Your task to perform on an android device: add a contact in the contacts app Image 0: 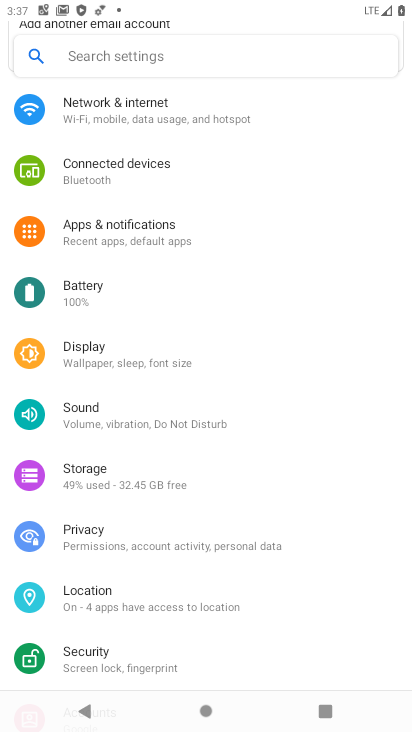
Step 0: press home button
Your task to perform on an android device: add a contact in the contacts app Image 1: 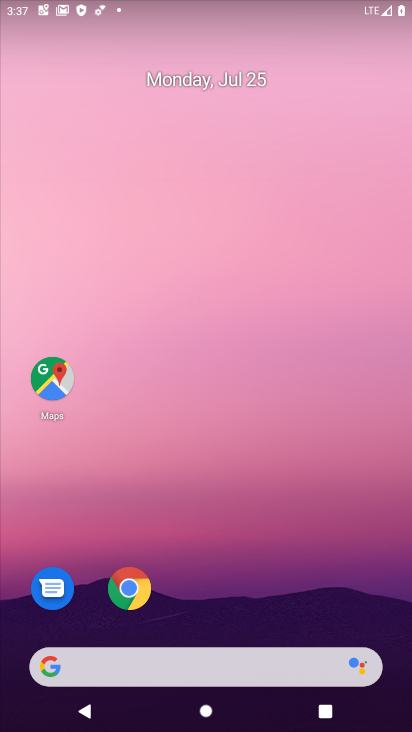
Step 1: drag from (402, 714) to (341, 86)
Your task to perform on an android device: add a contact in the contacts app Image 2: 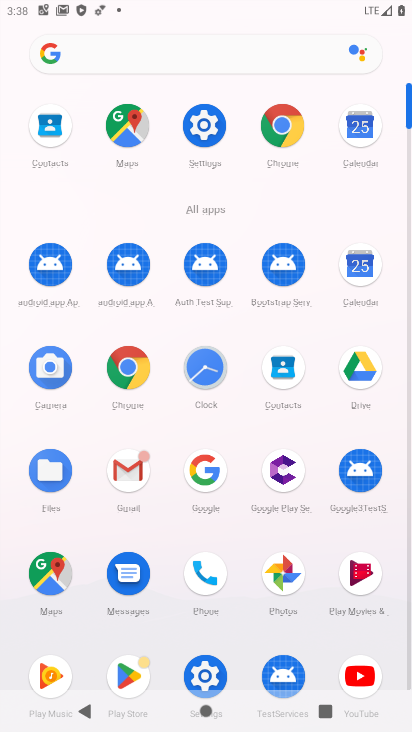
Step 2: click (279, 370)
Your task to perform on an android device: add a contact in the contacts app Image 3: 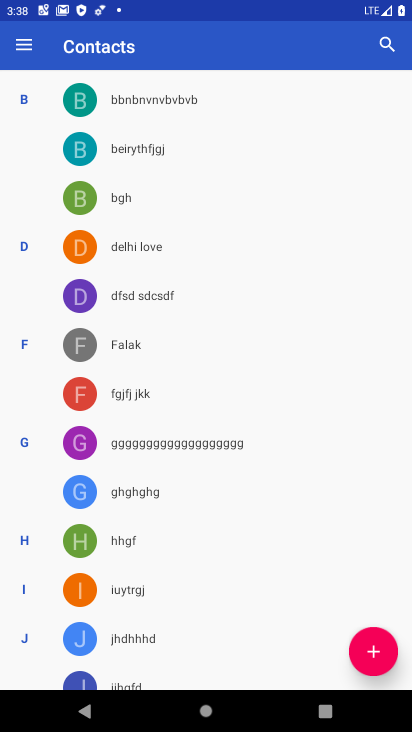
Step 3: click (374, 658)
Your task to perform on an android device: add a contact in the contacts app Image 4: 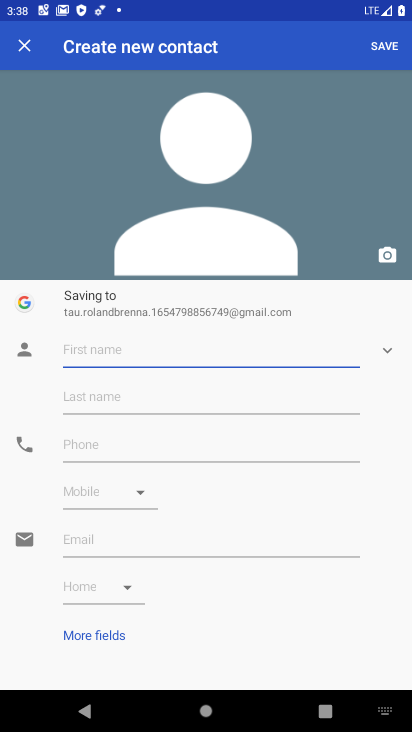
Step 4: type "shdffhsbhbv"
Your task to perform on an android device: add a contact in the contacts app Image 5: 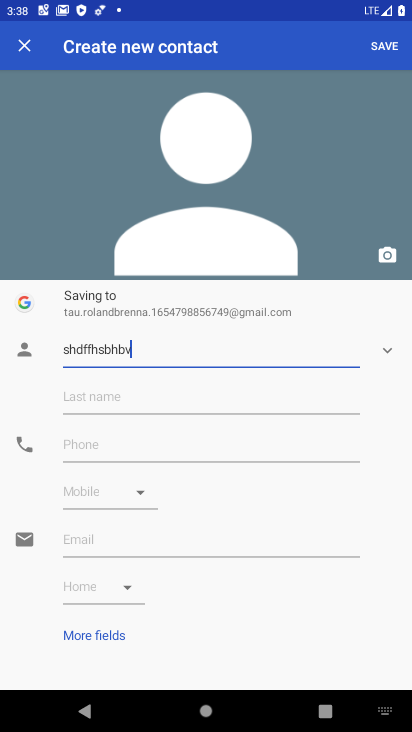
Step 5: click (106, 408)
Your task to perform on an android device: add a contact in the contacts app Image 6: 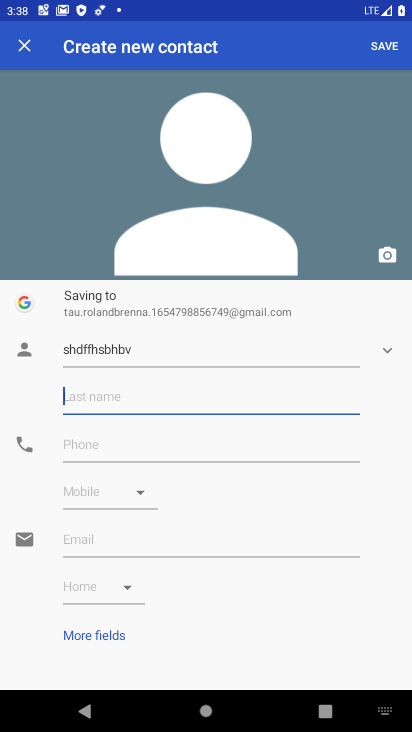
Step 6: type "jcbvhjvbwvbh"
Your task to perform on an android device: add a contact in the contacts app Image 7: 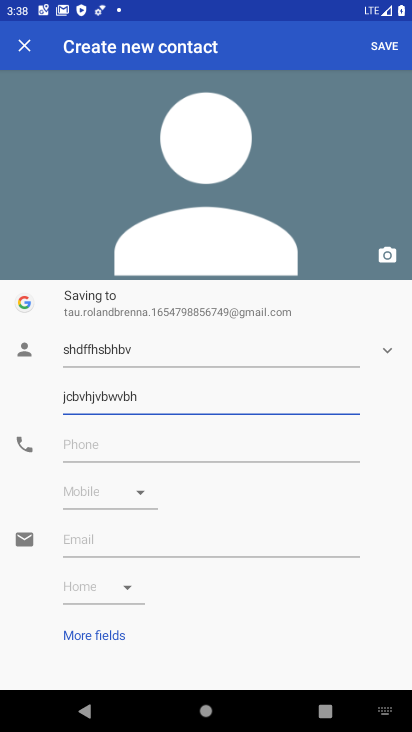
Step 7: click (107, 444)
Your task to perform on an android device: add a contact in the contacts app Image 8: 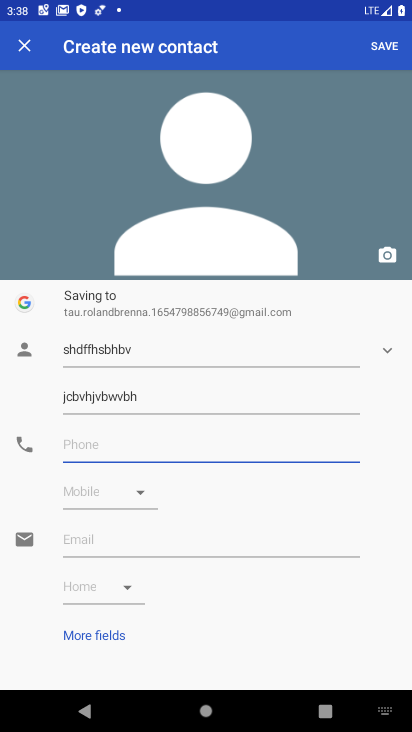
Step 8: type "673576573475775"
Your task to perform on an android device: add a contact in the contacts app Image 9: 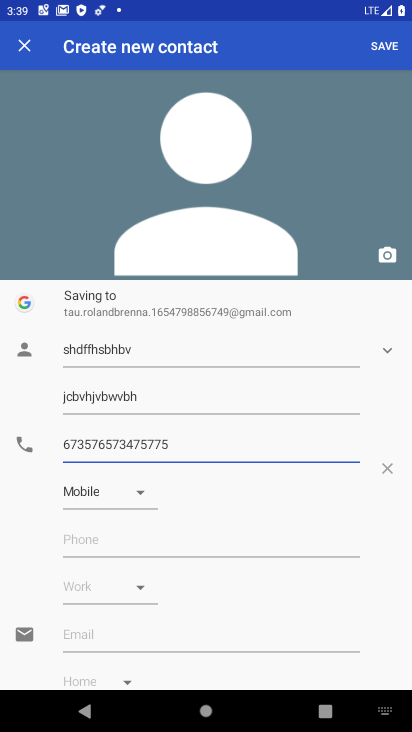
Step 9: click (372, 45)
Your task to perform on an android device: add a contact in the contacts app Image 10: 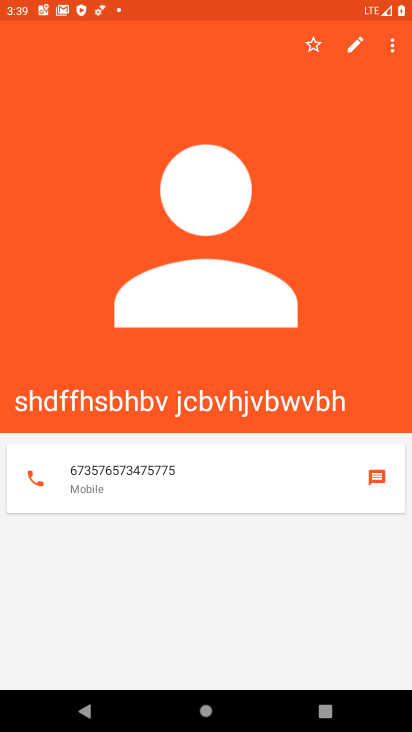
Step 10: task complete